Your task to perform on an android device: turn off data saver in the chrome app Image 0: 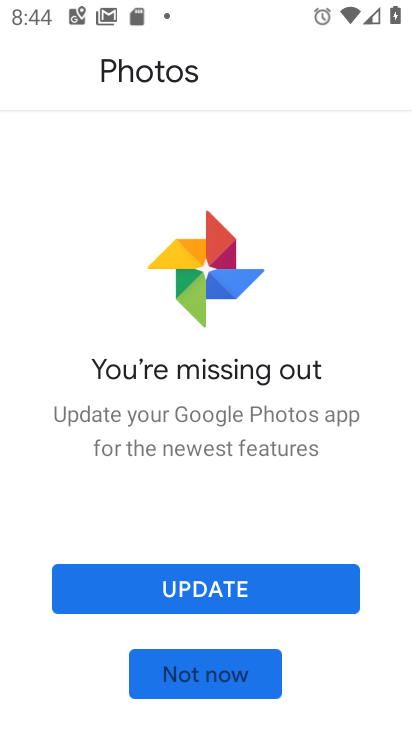
Step 0: press home button
Your task to perform on an android device: turn off data saver in the chrome app Image 1: 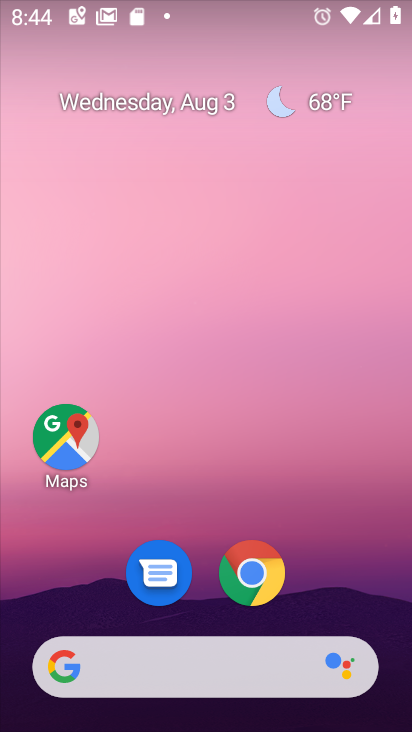
Step 1: click (252, 571)
Your task to perform on an android device: turn off data saver in the chrome app Image 2: 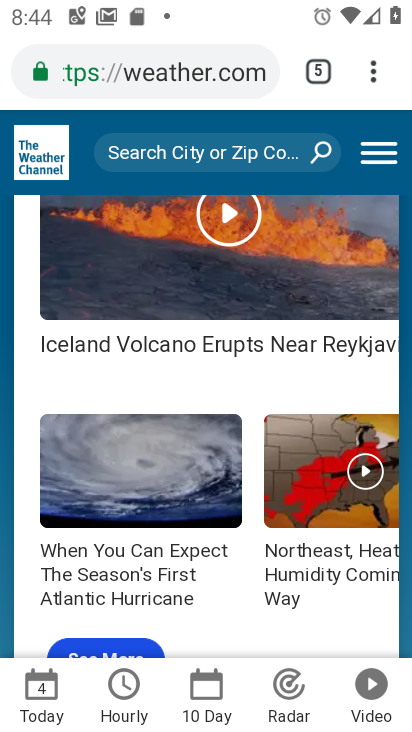
Step 2: click (379, 73)
Your task to perform on an android device: turn off data saver in the chrome app Image 3: 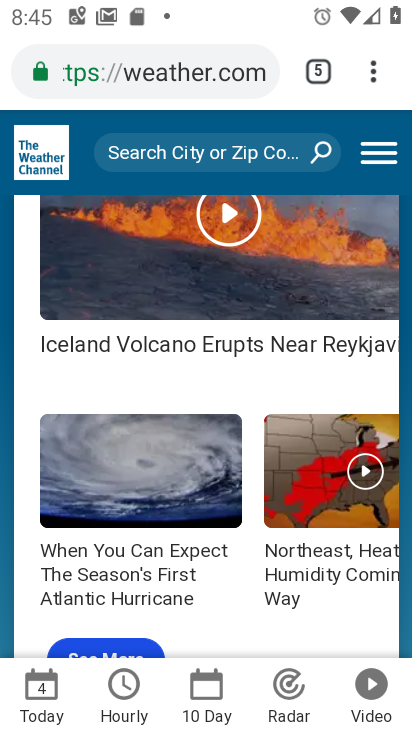
Step 3: click (374, 71)
Your task to perform on an android device: turn off data saver in the chrome app Image 4: 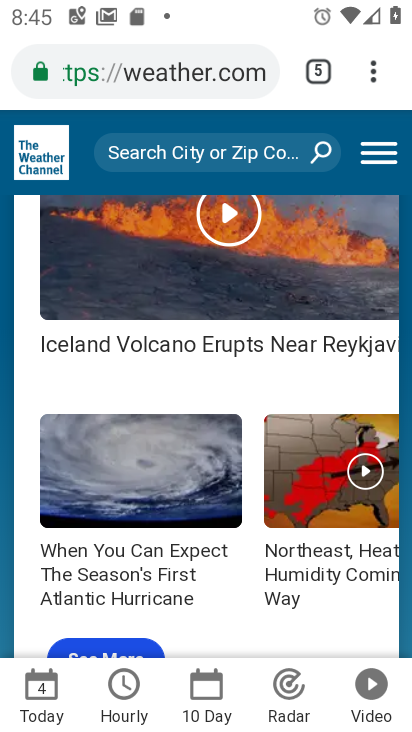
Step 4: drag from (379, 73) to (126, 564)
Your task to perform on an android device: turn off data saver in the chrome app Image 5: 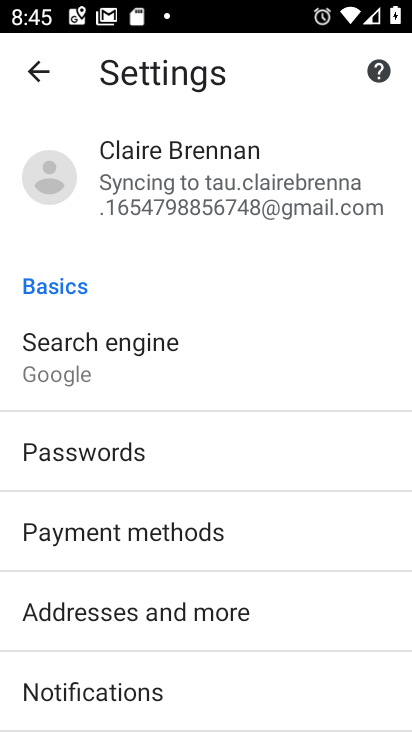
Step 5: drag from (165, 629) to (167, 121)
Your task to perform on an android device: turn off data saver in the chrome app Image 6: 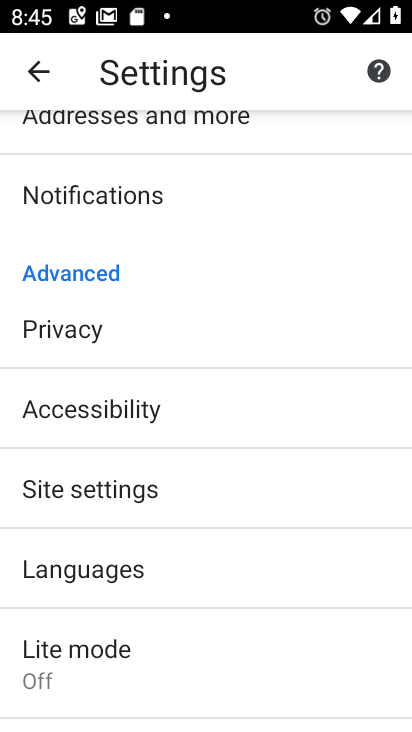
Step 6: click (87, 648)
Your task to perform on an android device: turn off data saver in the chrome app Image 7: 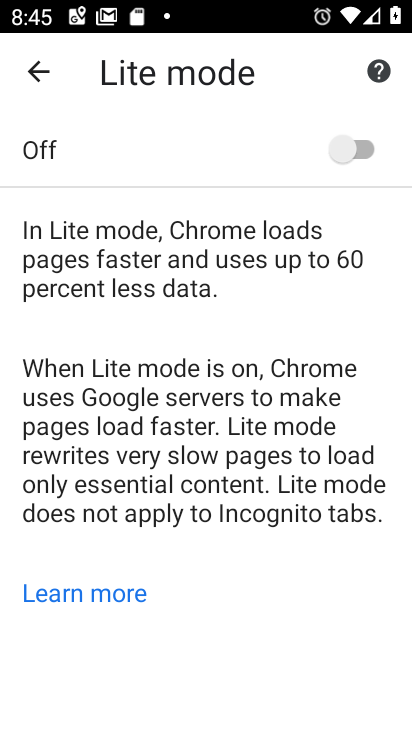
Step 7: task complete